Your task to perform on an android device: remove spam from my inbox in the gmail app Image 0: 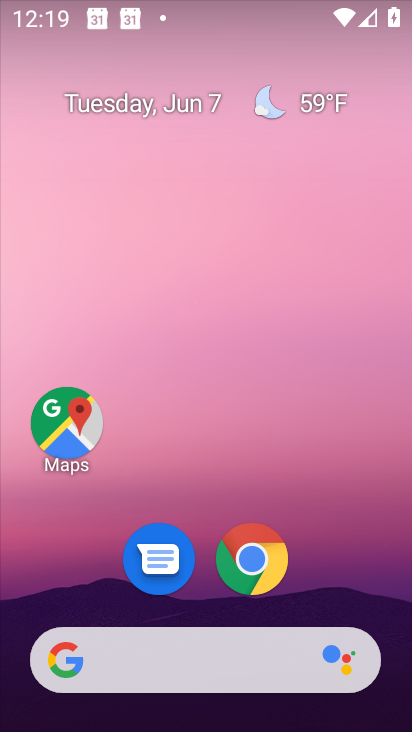
Step 0: drag from (349, 602) to (340, 6)
Your task to perform on an android device: remove spam from my inbox in the gmail app Image 1: 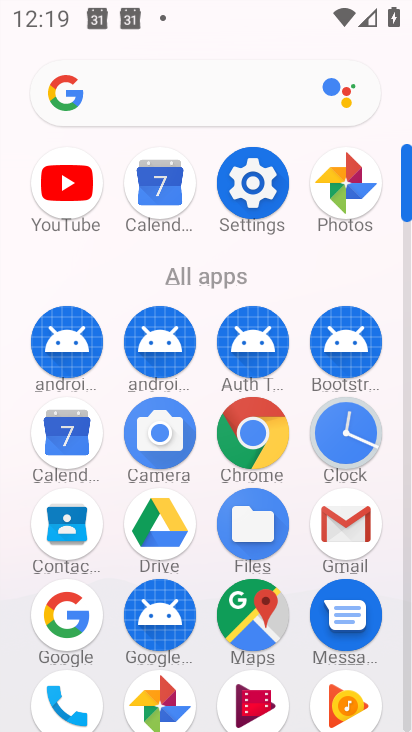
Step 1: drag from (200, 571) to (211, 125)
Your task to perform on an android device: remove spam from my inbox in the gmail app Image 2: 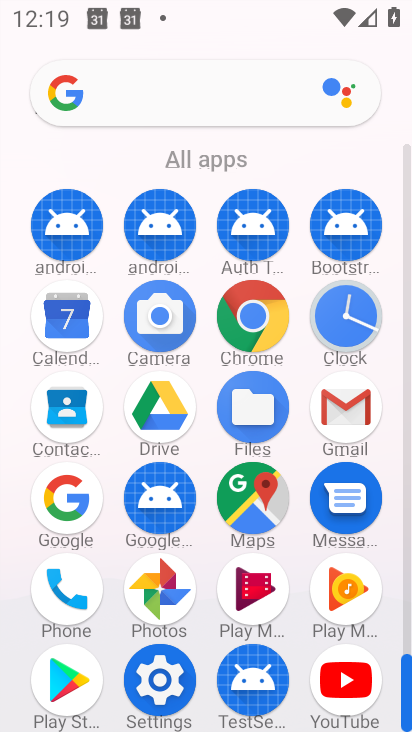
Step 2: click (359, 407)
Your task to perform on an android device: remove spam from my inbox in the gmail app Image 3: 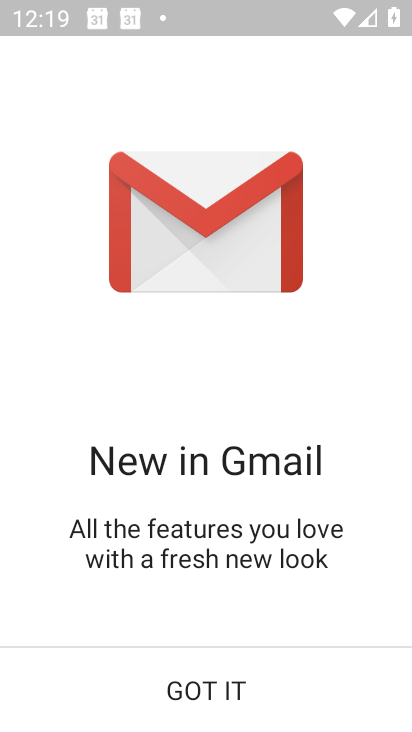
Step 3: click (250, 675)
Your task to perform on an android device: remove spam from my inbox in the gmail app Image 4: 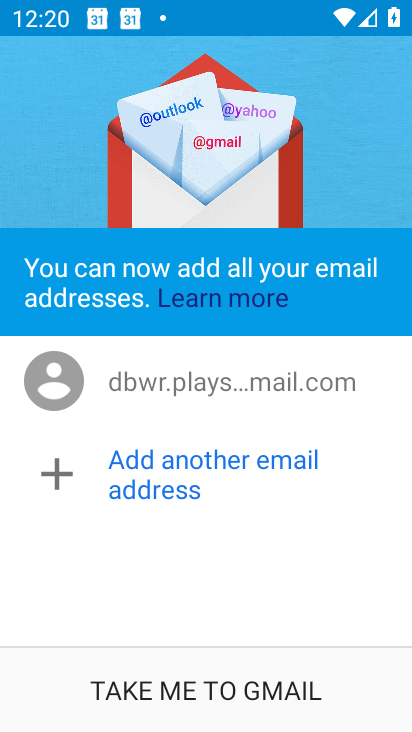
Step 4: click (184, 685)
Your task to perform on an android device: remove spam from my inbox in the gmail app Image 5: 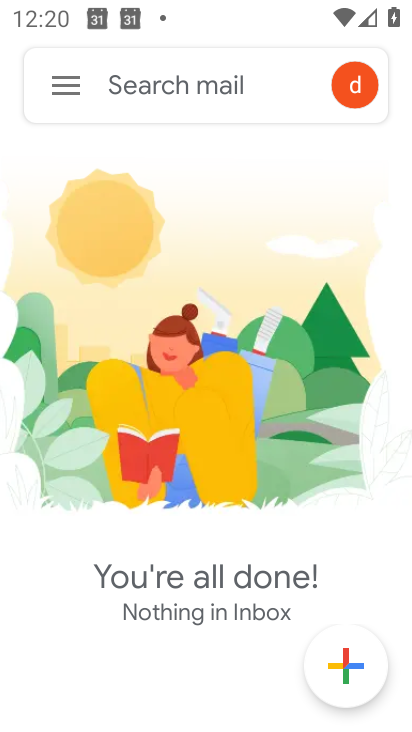
Step 5: click (59, 79)
Your task to perform on an android device: remove spam from my inbox in the gmail app Image 6: 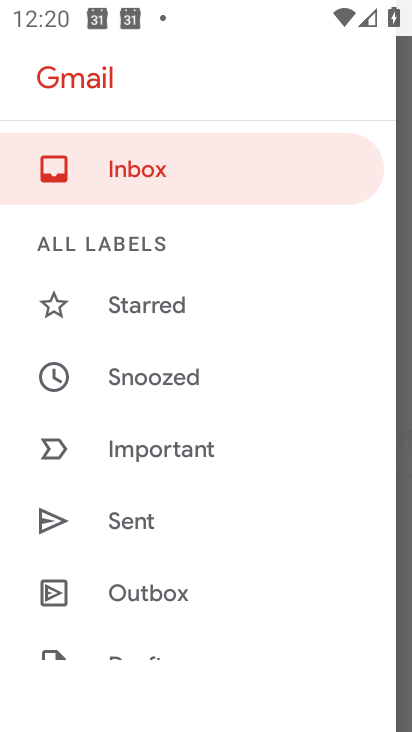
Step 6: drag from (218, 565) to (270, 193)
Your task to perform on an android device: remove spam from my inbox in the gmail app Image 7: 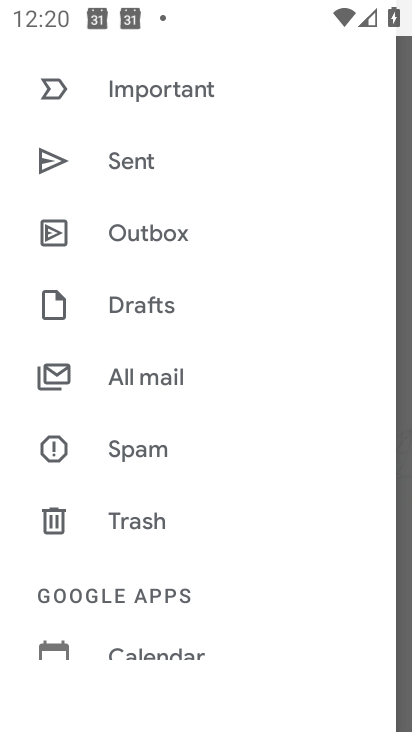
Step 7: drag from (192, 631) to (218, 188)
Your task to perform on an android device: remove spam from my inbox in the gmail app Image 8: 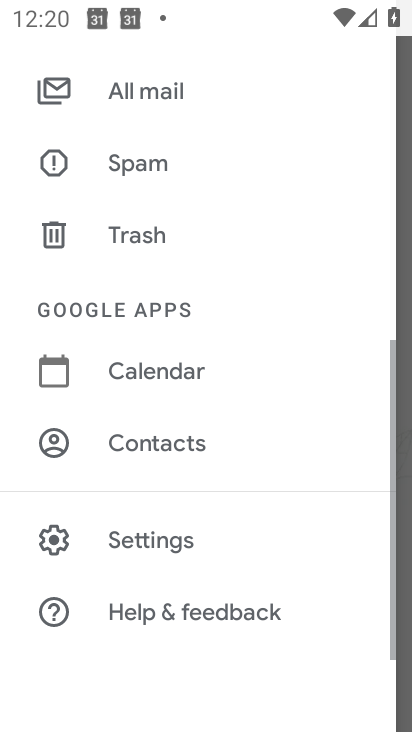
Step 8: click (132, 158)
Your task to perform on an android device: remove spam from my inbox in the gmail app Image 9: 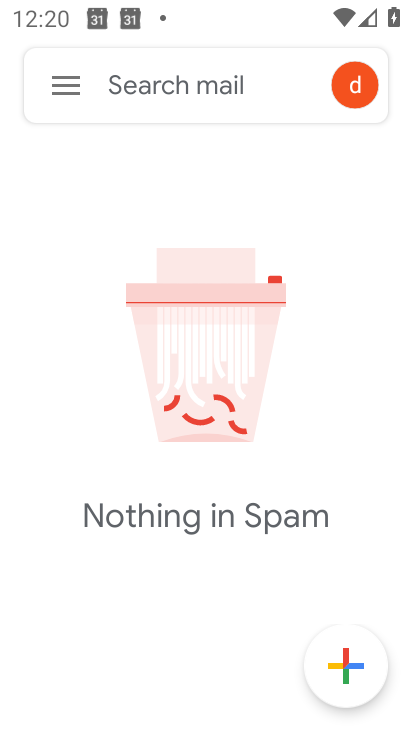
Step 9: task complete